Your task to perform on an android device: turn on notifications settings in the gmail app Image 0: 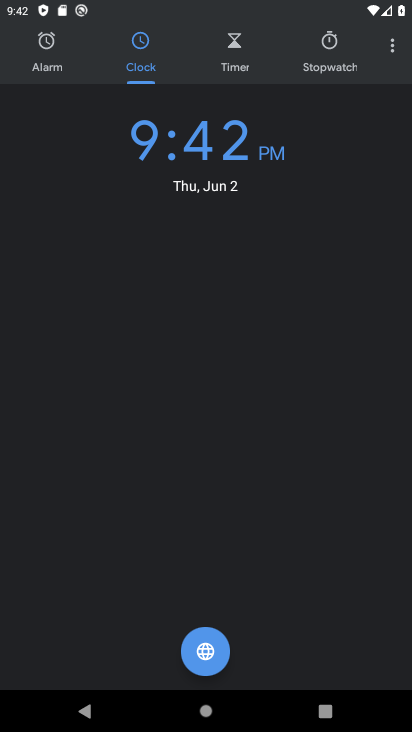
Step 0: press home button
Your task to perform on an android device: turn on notifications settings in the gmail app Image 1: 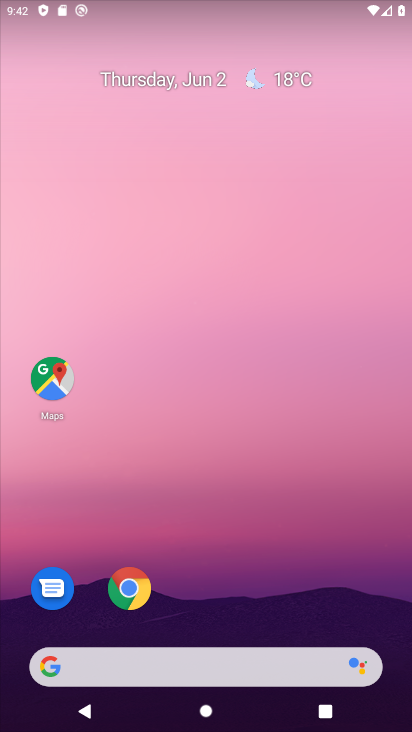
Step 1: drag from (269, 686) to (219, 63)
Your task to perform on an android device: turn on notifications settings in the gmail app Image 2: 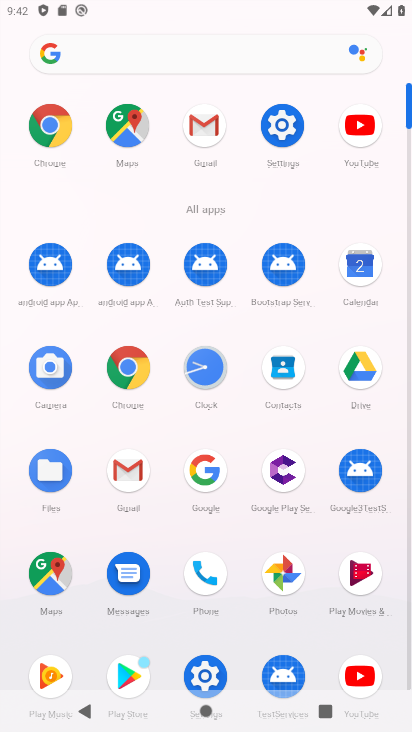
Step 2: click (196, 128)
Your task to perform on an android device: turn on notifications settings in the gmail app Image 3: 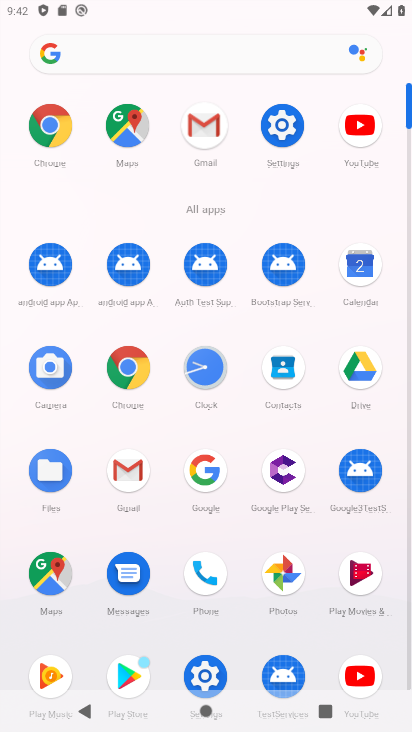
Step 3: click (195, 128)
Your task to perform on an android device: turn on notifications settings in the gmail app Image 4: 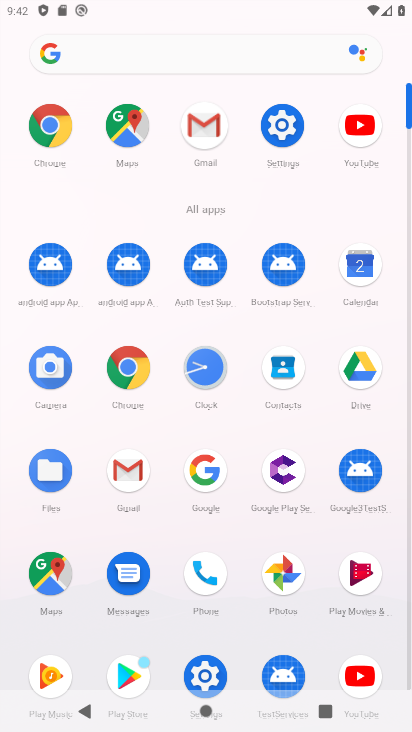
Step 4: click (195, 128)
Your task to perform on an android device: turn on notifications settings in the gmail app Image 5: 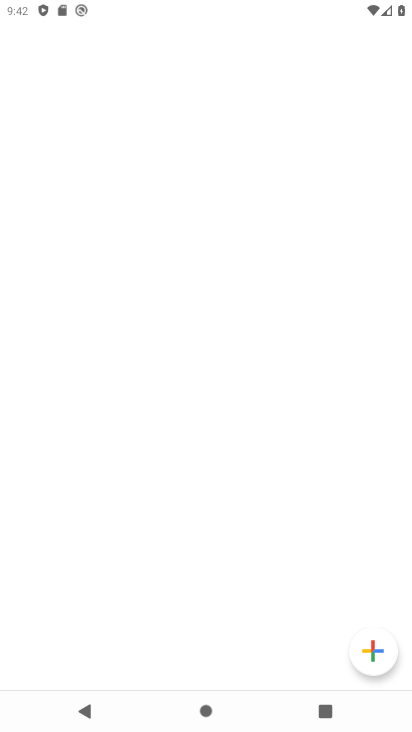
Step 5: click (193, 128)
Your task to perform on an android device: turn on notifications settings in the gmail app Image 6: 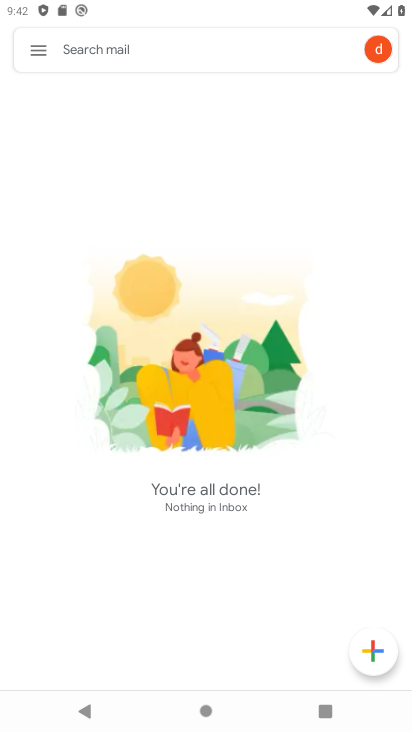
Step 6: click (36, 46)
Your task to perform on an android device: turn on notifications settings in the gmail app Image 7: 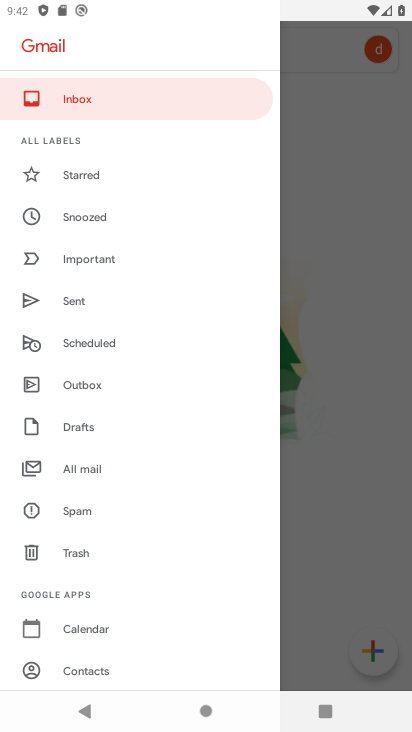
Step 7: drag from (107, 546) to (104, 181)
Your task to perform on an android device: turn on notifications settings in the gmail app Image 8: 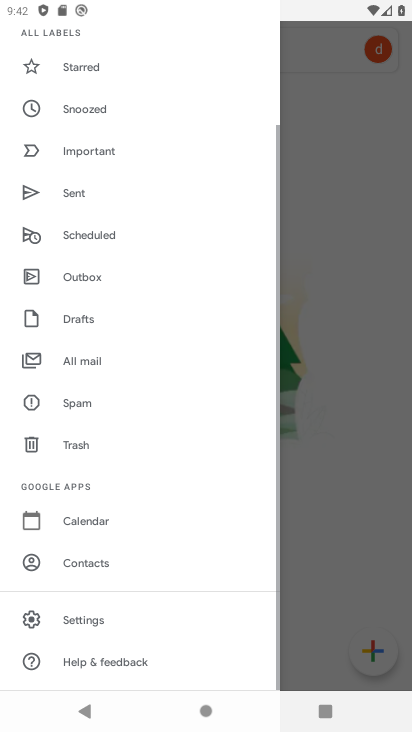
Step 8: drag from (151, 485) to (147, 173)
Your task to perform on an android device: turn on notifications settings in the gmail app Image 9: 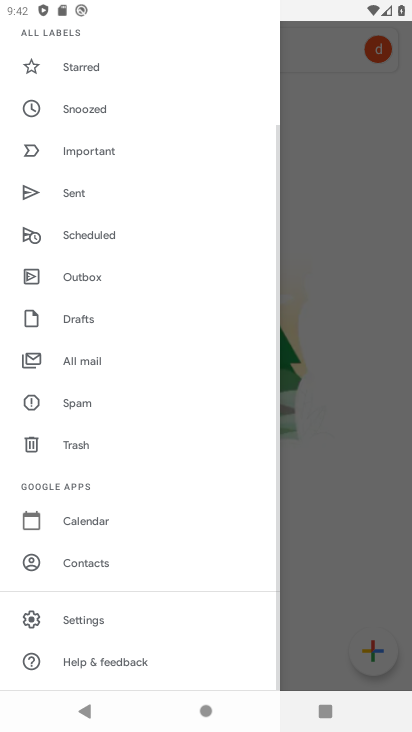
Step 9: click (81, 620)
Your task to perform on an android device: turn on notifications settings in the gmail app Image 10: 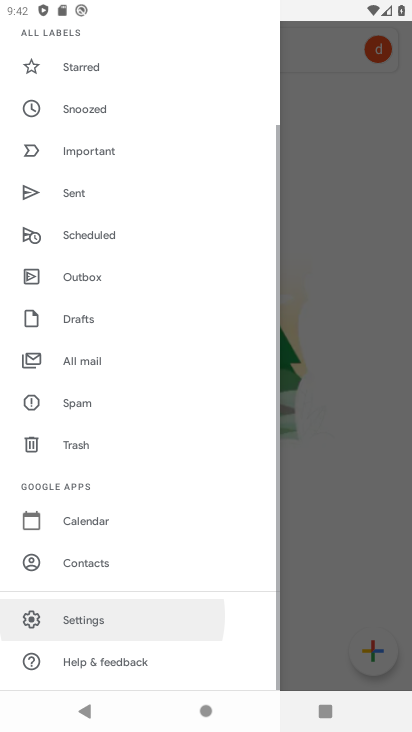
Step 10: click (78, 624)
Your task to perform on an android device: turn on notifications settings in the gmail app Image 11: 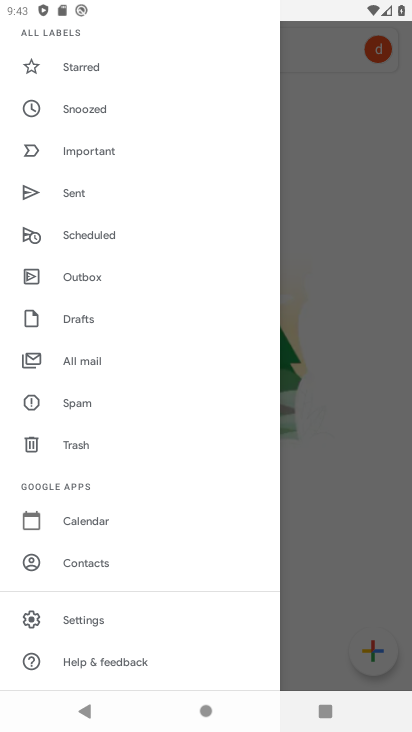
Step 11: click (102, 622)
Your task to perform on an android device: turn on notifications settings in the gmail app Image 12: 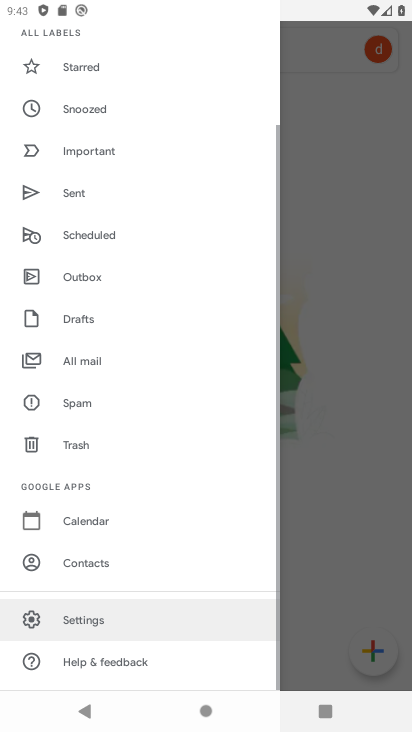
Step 12: click (89, 622)
Your task to perform on an android device: turn on notifications settings in the gmail app Image 13: 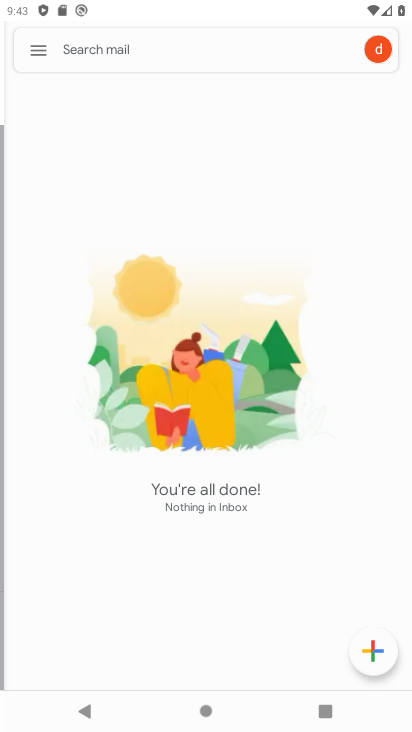
Step 13: click (89, 622)
Your task to perform on an android device: turn on notifications settings in the gmail app Image 14: 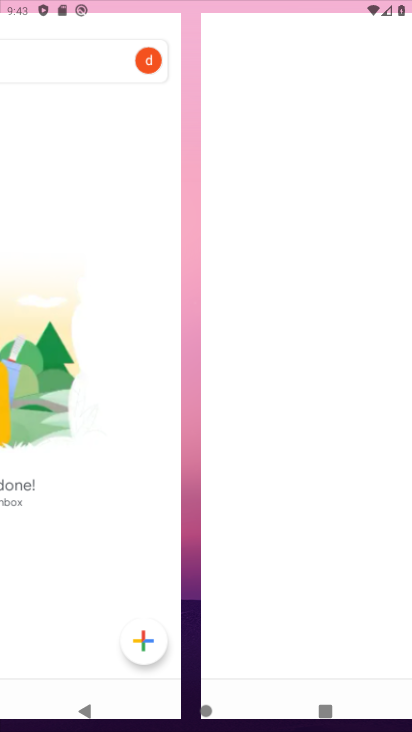
Step 14: click (88, 621)
Your task to perform on an android device: turn on notifications settings in the gmail app Image 15: 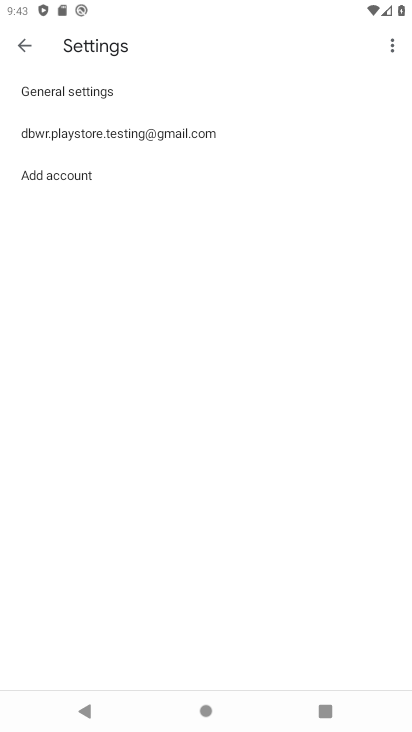
Step 15: click (92, 134)
Your task to perform on an android device: turn on notifications settings in the gmail app Image 16: 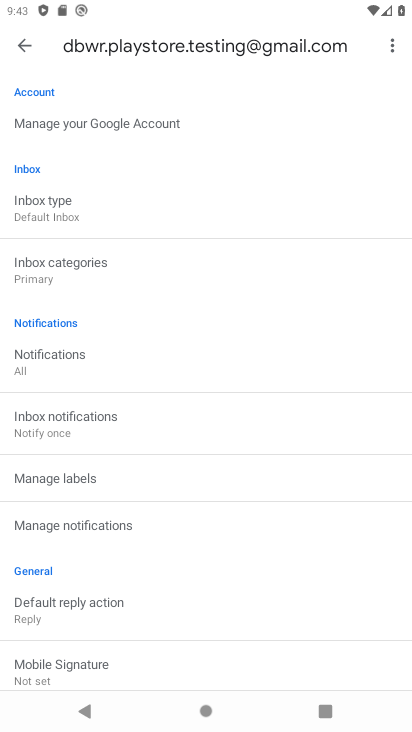
Step 16: click (47, 350)
Your task to perform on an android device: turn on notifications settings in the gmail app Image 17: 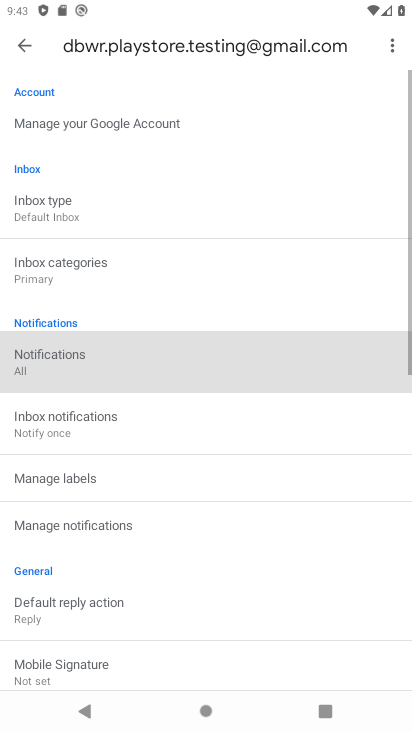
Step 17: click (52, 350)
Your task to perform on an android device: turn on notifications settings in the gmail app Image 18: 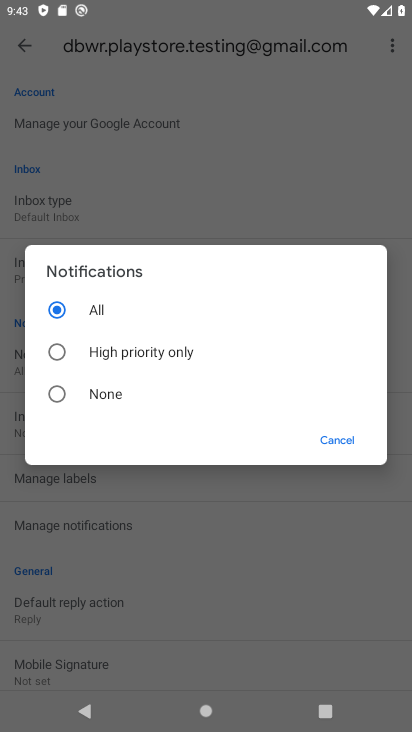
Step 18: click (351, 435)
Your task to perform on an android device: turn on notifications settings in the gmail app Image 19: 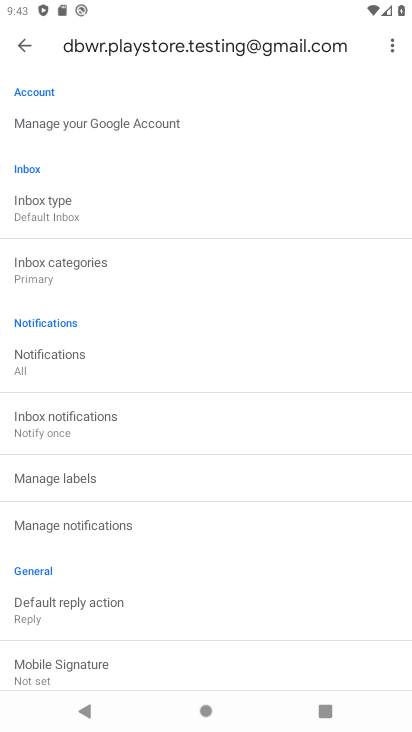
Step 19: task complete